Your task to perform on an android device: Open Google Chrome Image 0: 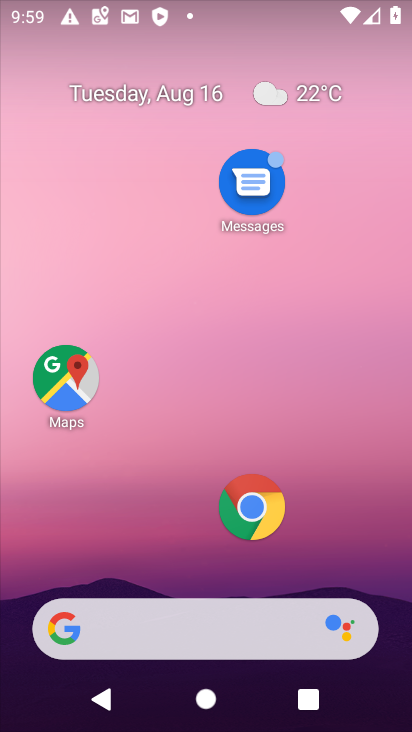
Step 0: click (255, 514)
Your task to perform on an android device: Open Google Chrome Image 1: 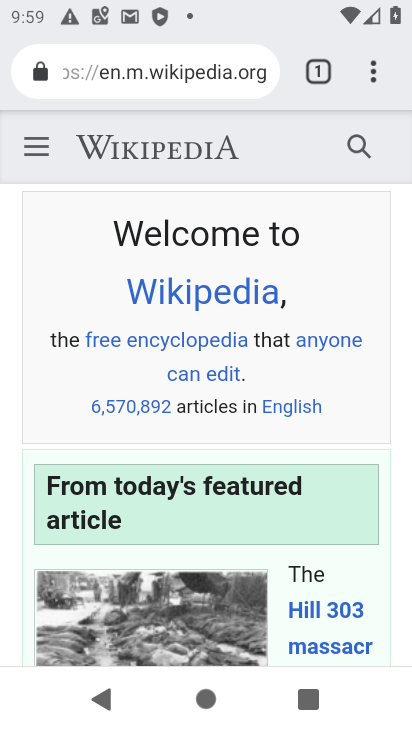
Step 1: task complete